Your task to perform on an android device: Show the shopping cart on walmart.com. Image 0: 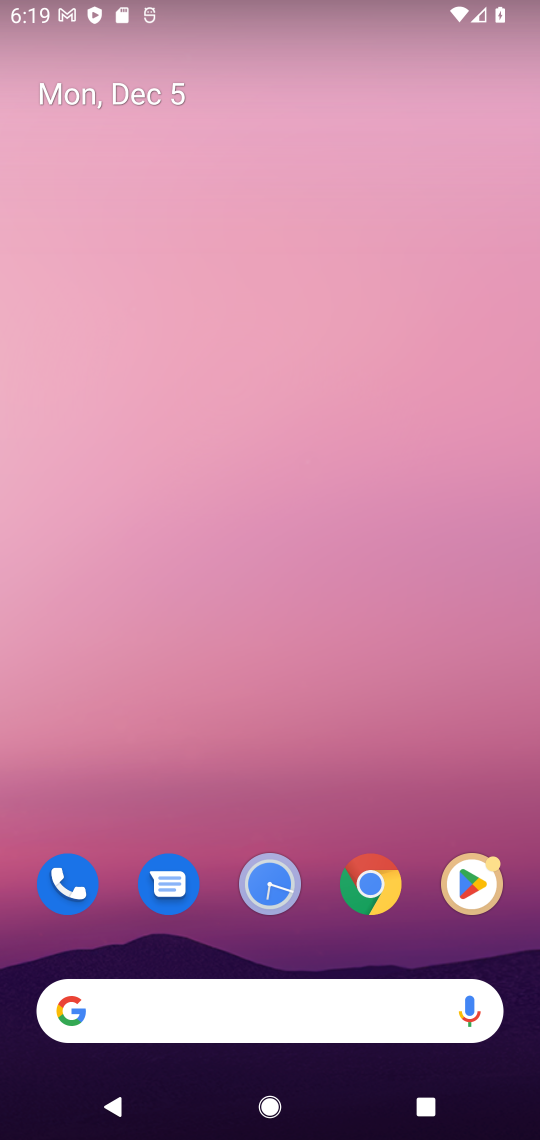
Step 0: click (369, 893)
Your task to perform on an android device: Show the shopping cart on walmart.com. Image 1: 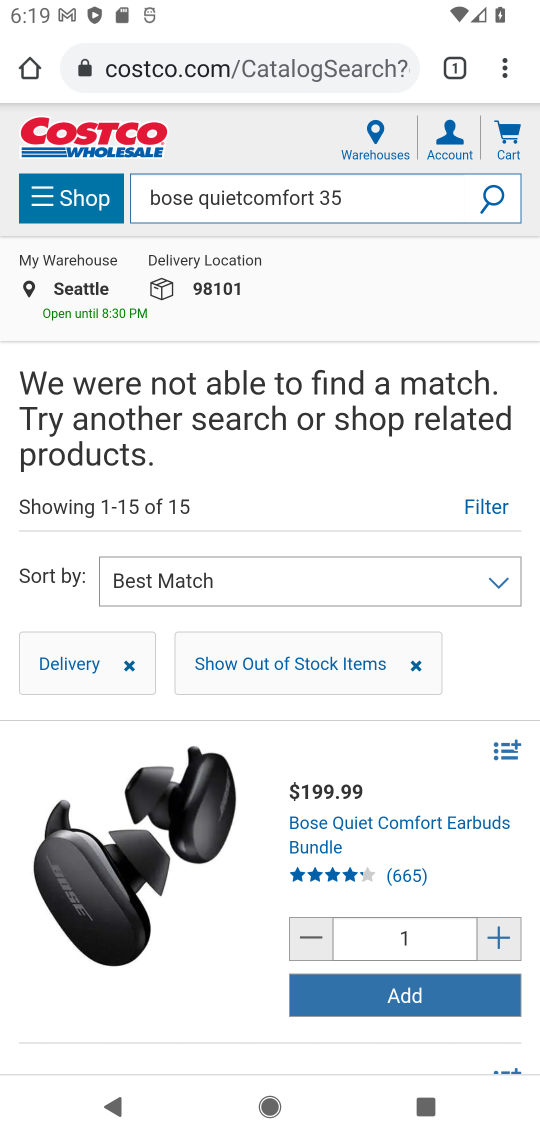
Step 1: click (460, 73)
Your task to perform on an android device: Show the shopping cart on walmart.com. Image 2: 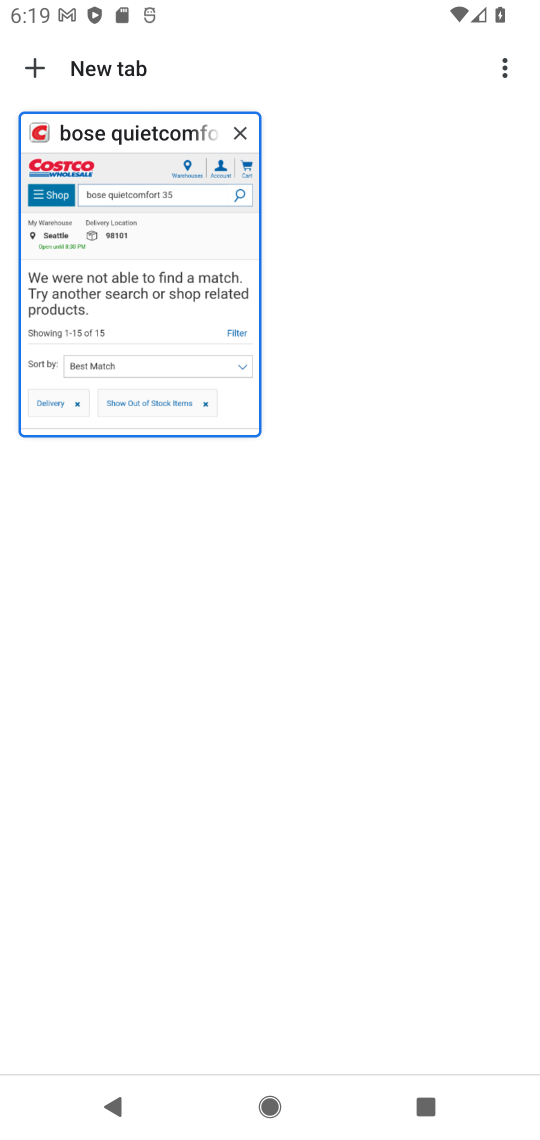
Step 2: click (35, 61)
Your task to perform on an android device: Show the shopping cart on walmart.com. Image 3: 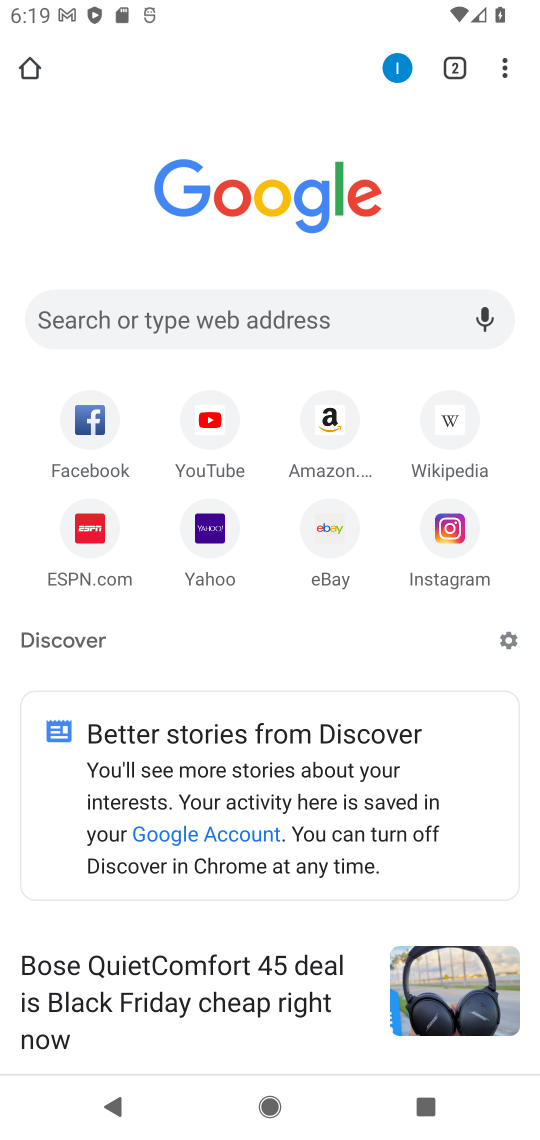
Step 3: click (251, 319)
Your task to perform on an android device: Show the shopping cart on walmart.com. Image 4: 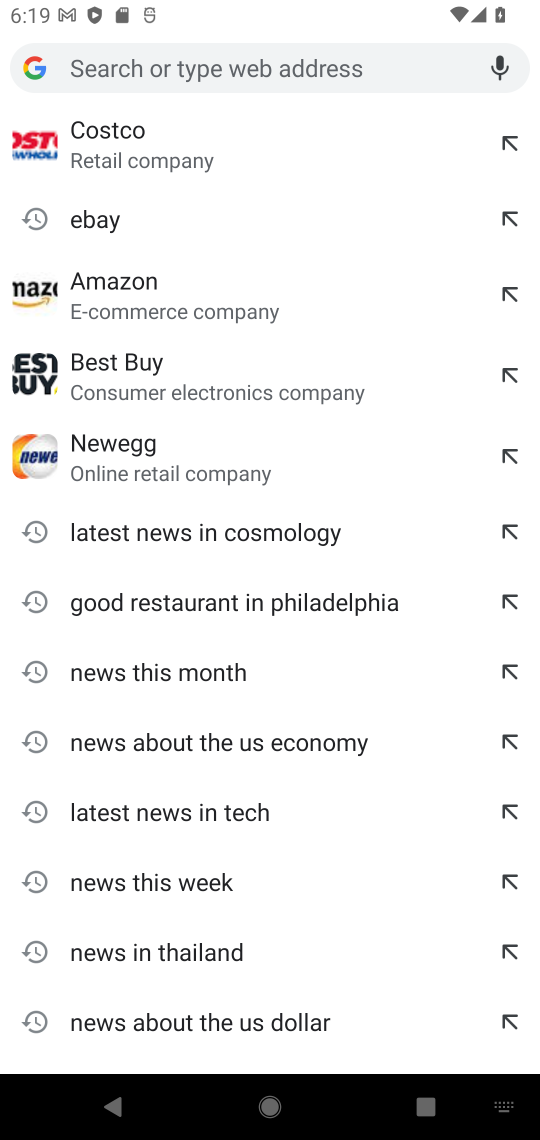
Step 4: type "walmart"
Your task to perform on an android device: Show the shopping cart on walmart.com. Image 5: 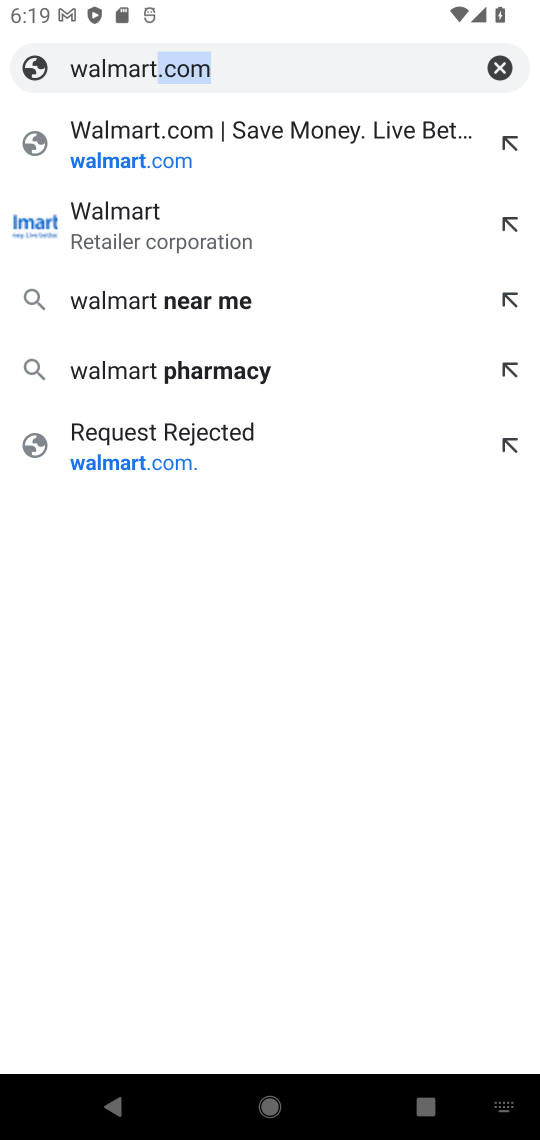
Step 5: click (162, 220)
Your task to perform on an android device: Show the shopping cart on walmart.com. Image 6: 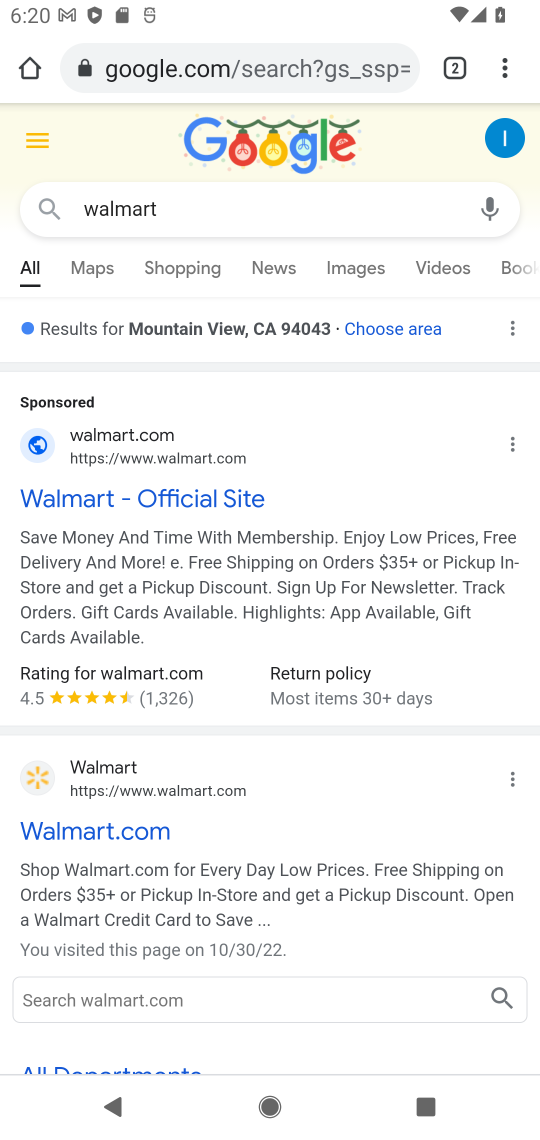
Step 6: click (94, 820)
Your task to perform on an android device: Show the shopping cart on walmart.com. Image 7: 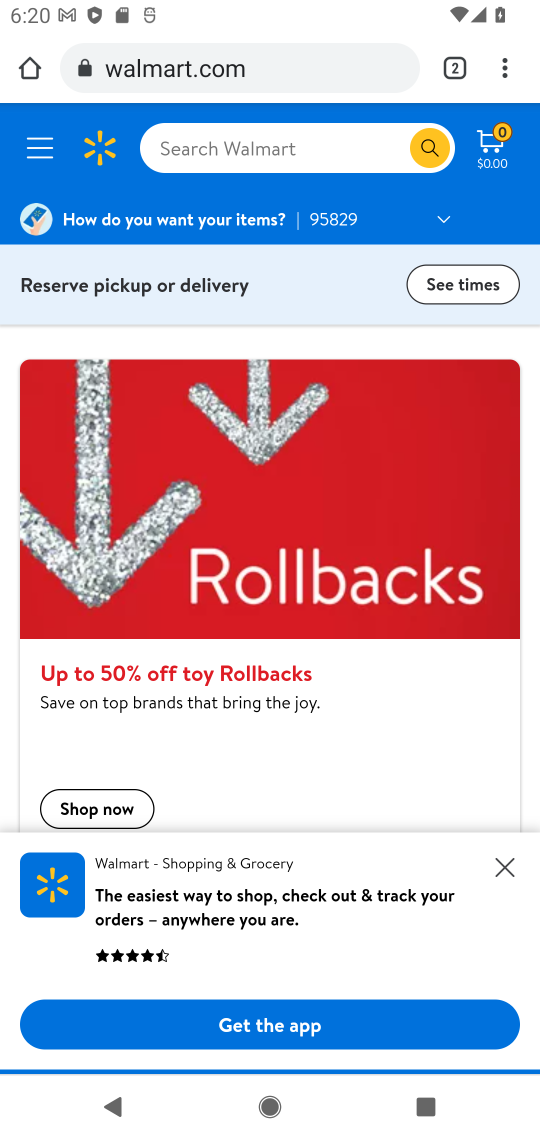
Step 7: click (493, 140)
Your task to perform on an android device: Show the shopping cart on walmart.com. Image 8: 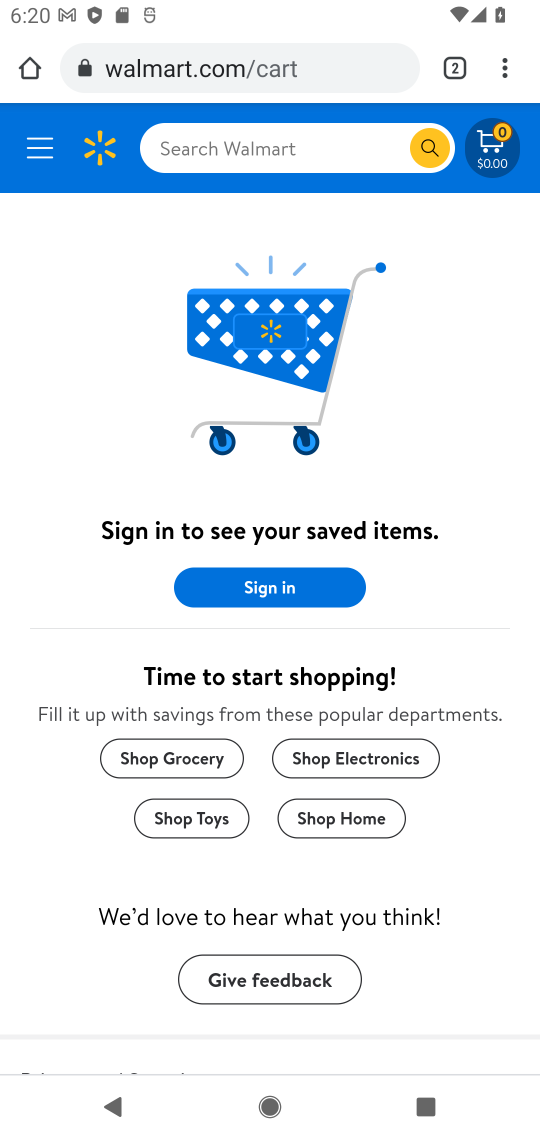
Step 8: task complete